Your task to perform on an android device: Open Google Chrome and click the shortcut for Amazon.com Image 0: 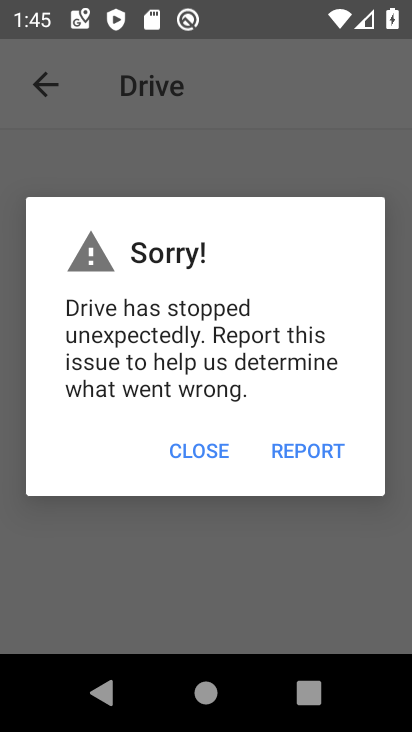
Step 0: click (216, 448)
Your task to perform on an android device: Open Google Chrome and click the shortcut for Amazon.com Image 1: 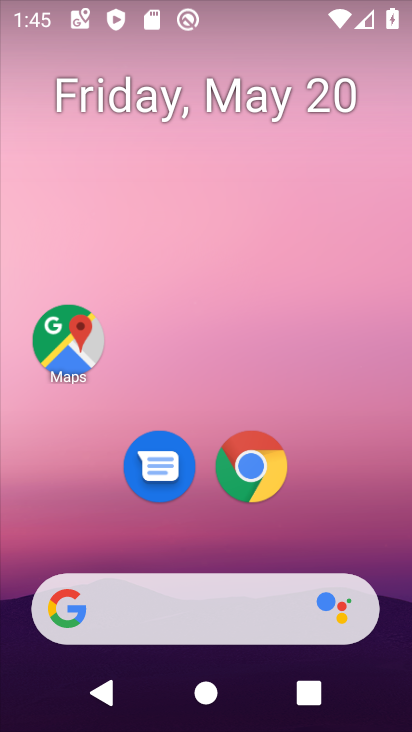
Step 1: click (259, 461)
Your task to perform on an android device: Open Google Chrome and click the shortcut for Amazon.com Image 2: 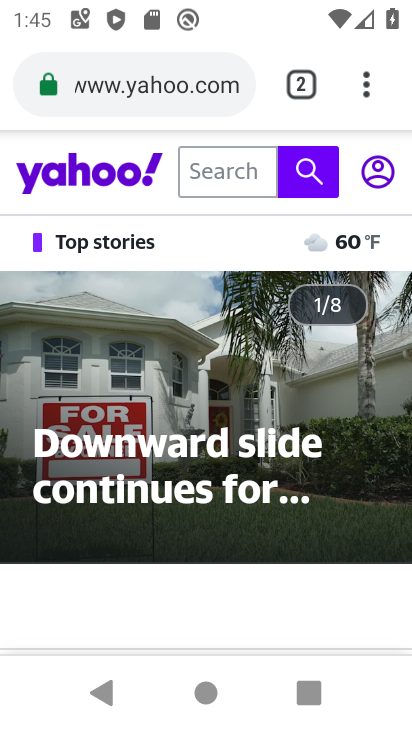
Step 2: click (302, 72)
Your task to perform on an android device: Open Google Chrome and click the shortcut for Amazon.com Image 3: 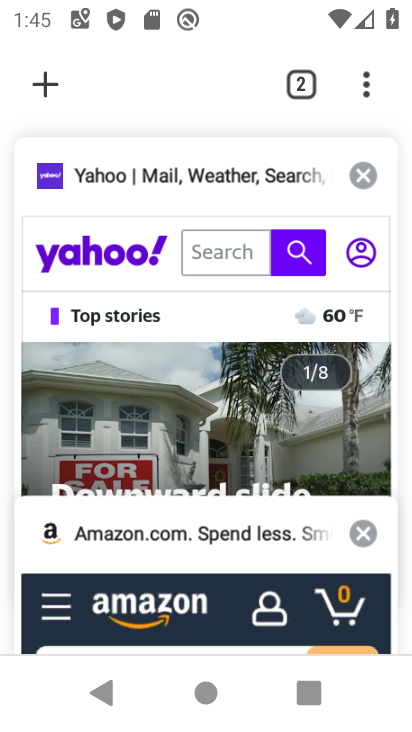
Step 3: click (165, 630)
Your task to perform on an android device: Open Google Chrome and click the shortcut for Amazon.com Image 4: 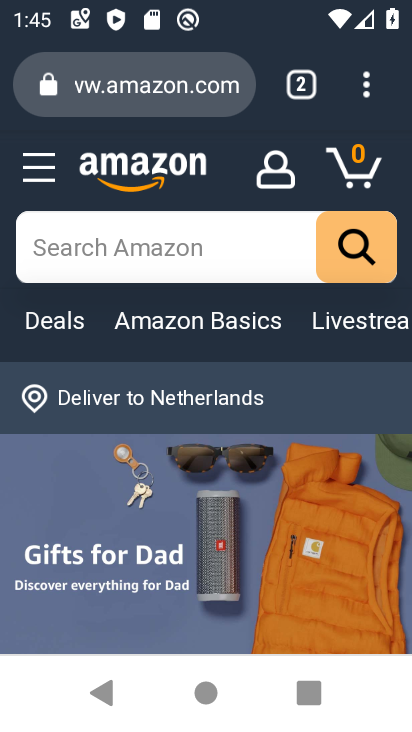
Step 4: task complete